Your task to perform on an android device: open a new tab in the chrome app Image 0: 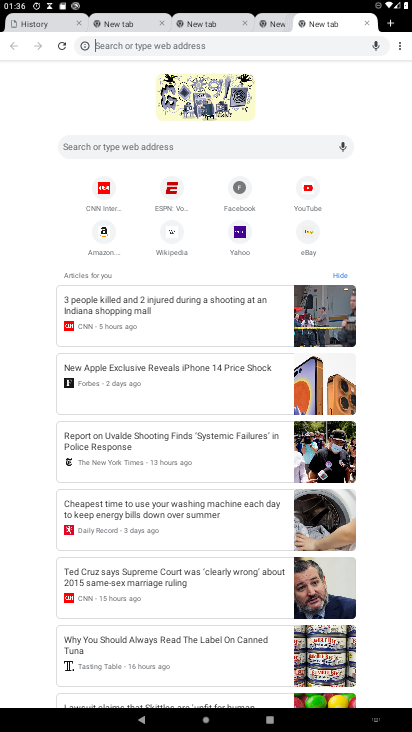
Step 0: press home button
Your task to perform on an android device: open a new tab in the chrome app Image 1: 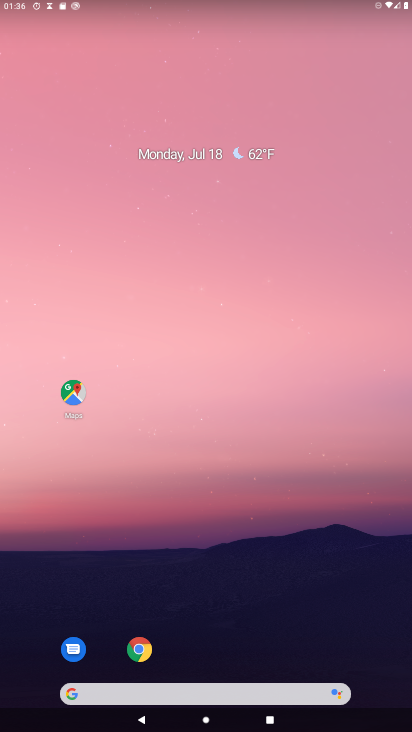
Step 1: click (130, 644)
Your task to perform on an android device: open a new tab in the chrome app Image 2: 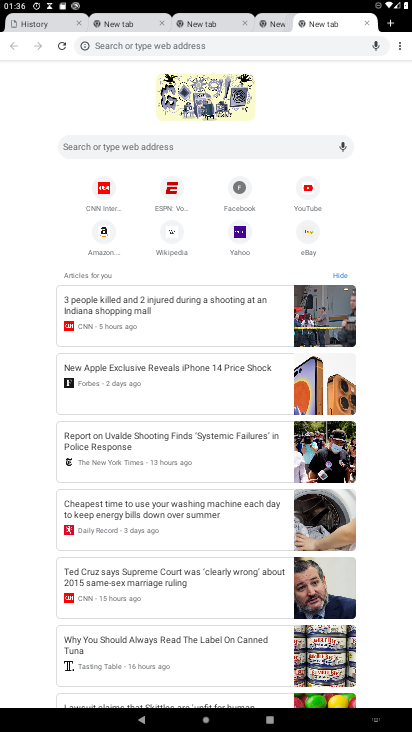
Step 2: click (399, 38)
Your task to perform on an android device: open a new tab in the chrome app Image 3: 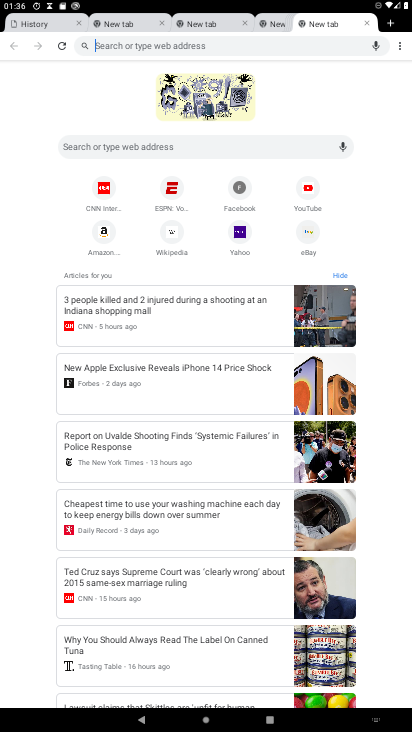
Step 3: task complete